Your task to perform on an android device: empty trash in google photos Image 0: 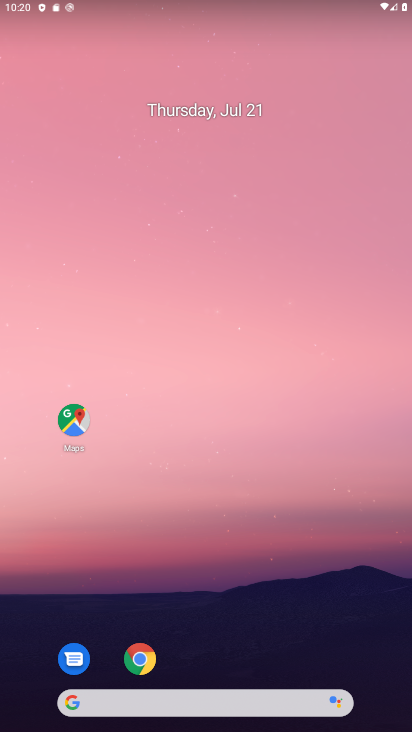
Step 0: drag from (228, 637) to (194, 113)
Your task to perform on an android device: empty trash in google photos Image 1: 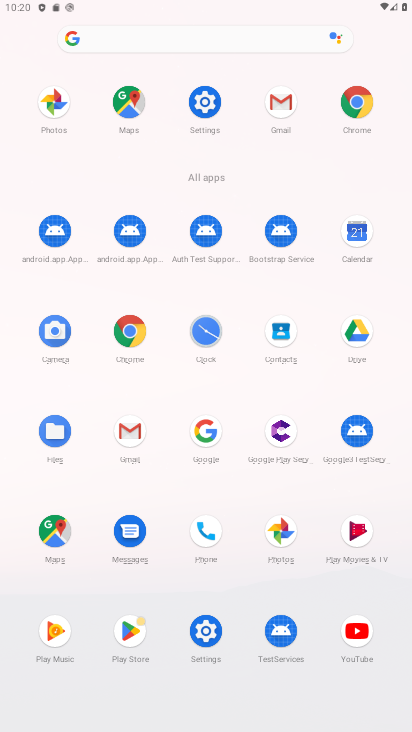
Step 1: click (289, 543)
Your task to perform on an android device: empty trash in google photos Image 2: 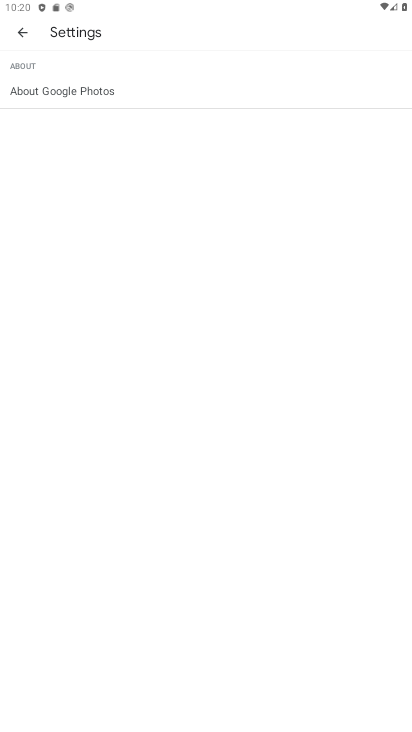
Step 2: click (20, 32)
Your task to perform on an android device: empty trash in google photos Image 3: 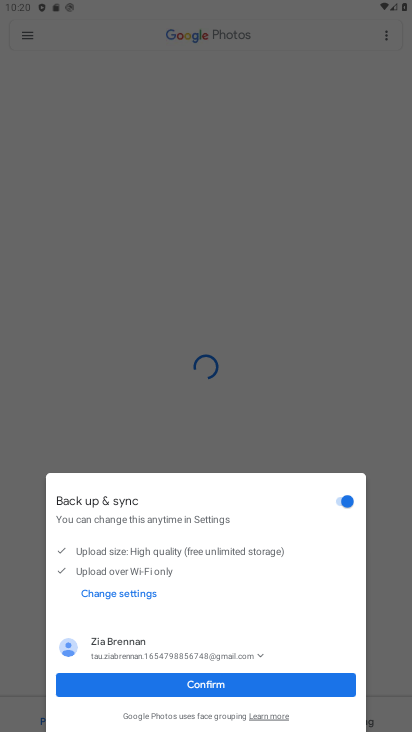
Step 3: click (190, 696)
Your task to perform on an android device: empty trash in google photos Image 4: 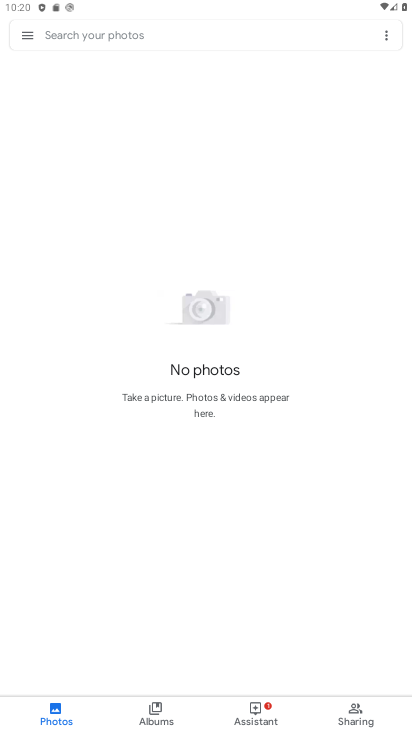
Step 4: click (20, 33)
Your task to perform on an android device: empty trash in google photos Image 5: 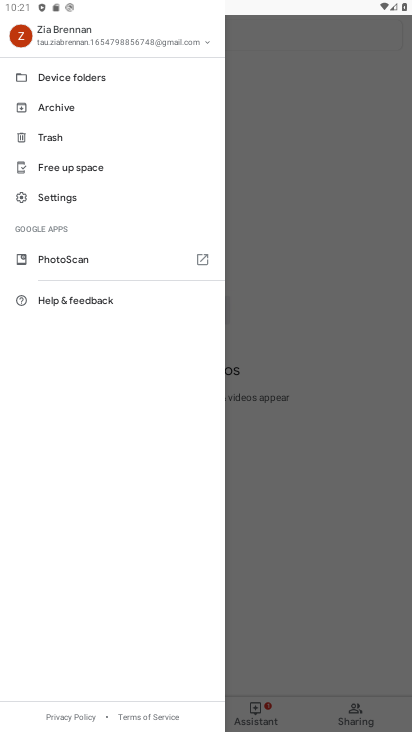
Step 5: click (55, 140)
Your task to perform on an android device: empty trash in google photos Image 6: 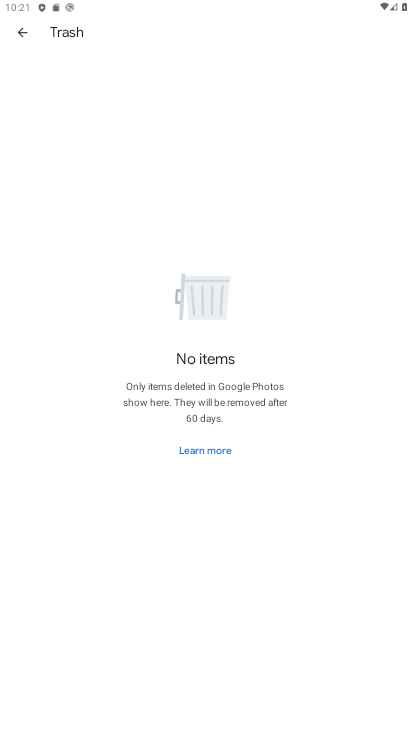
Step 6: task complete